Your task to perform on an android device: Show me the alarms in the clock app Image 0: 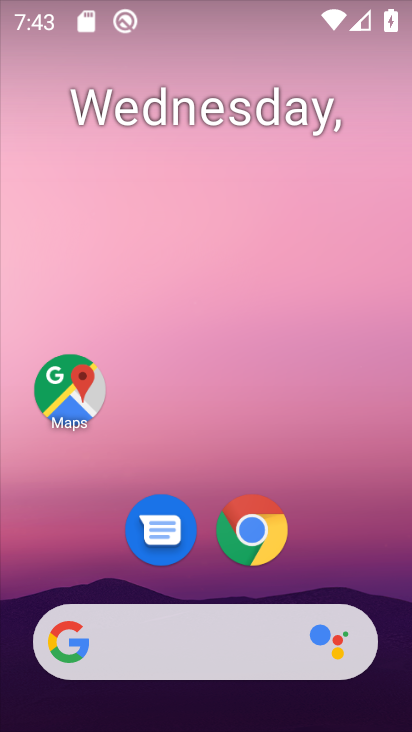
Step 0: drag from (387, 642) to (339, 117)
Your task to perform on an android device: Show me the alarms in the clock app Image 1: 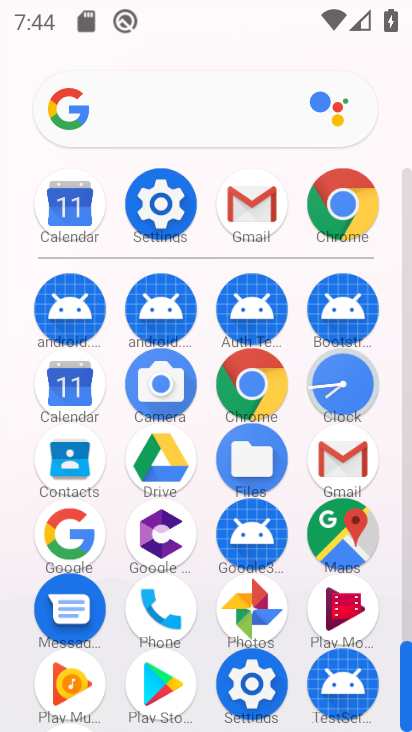
Step 1: click (346, 383)
Your task to perform on an android device: Show me the alarms in the clock app Image 2: 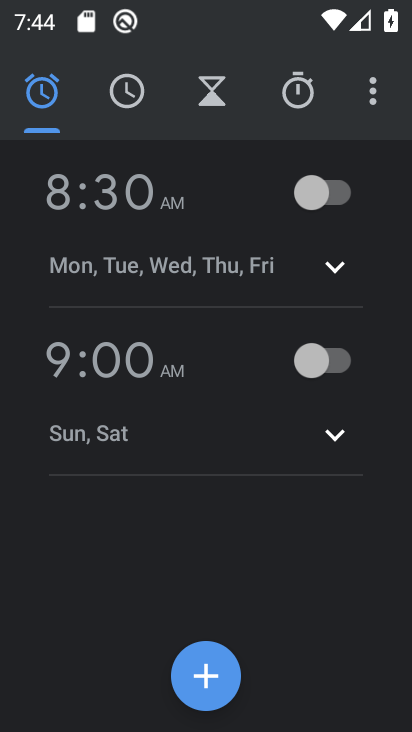
Step 2: task complete